Your task to perform on an android device: Go to privacy settings Image 0: 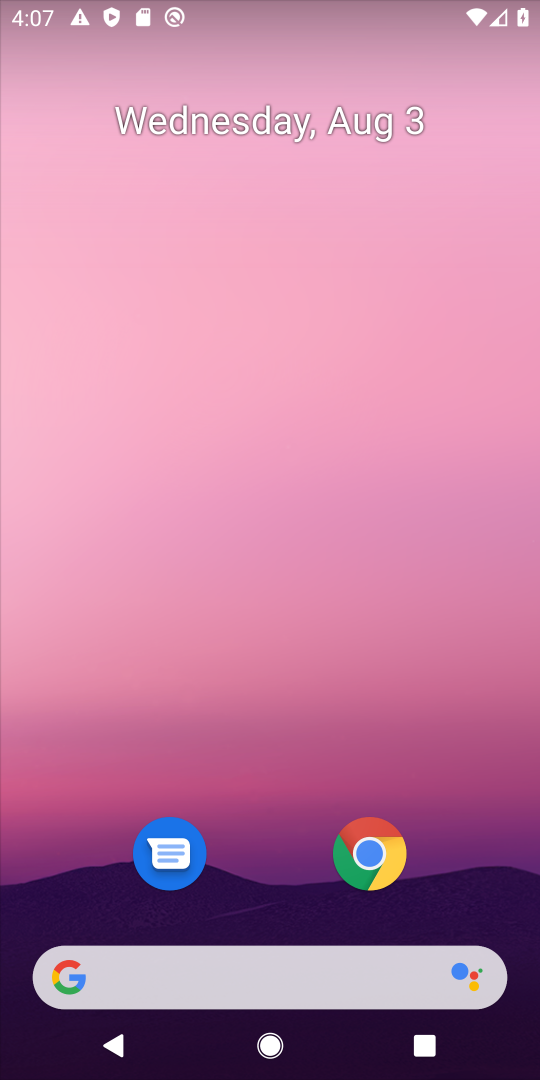
Step 0: drag from (254, 392) to (291, 68)
Your task to perform on an android device: Go to privacy settings Image 1: 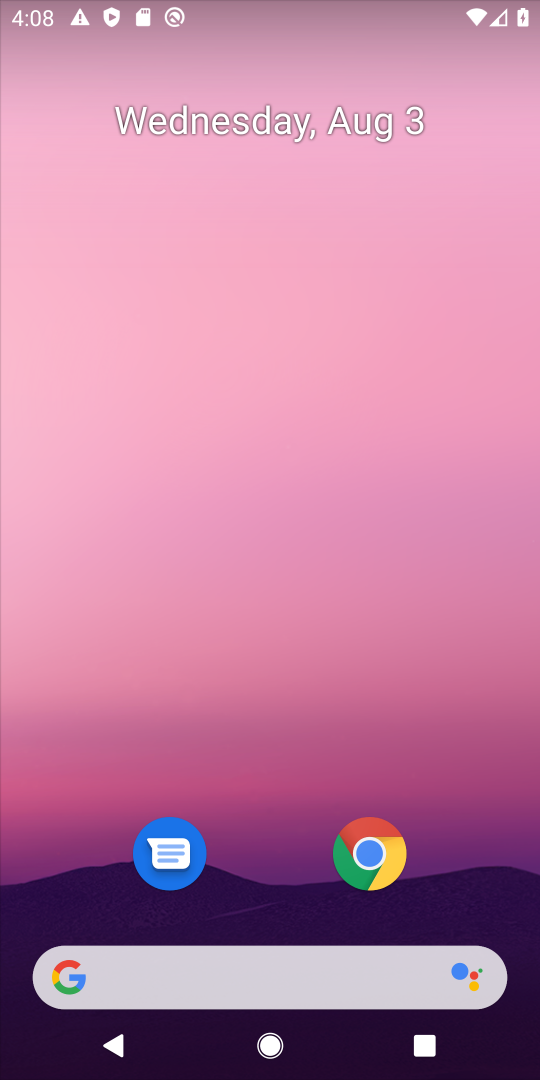
Step 1: drag from (277, 845) to (527, 284)
Your task to perform on an android device: Go to privacy settings Image 2: 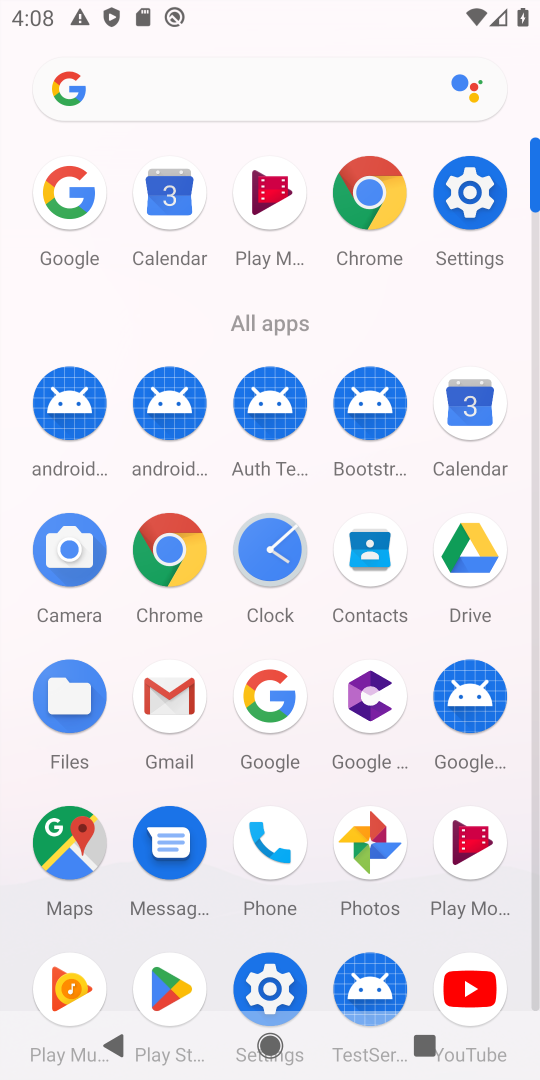
Step 2: click (467, 197)
Your task to perform on an android device: Go to privacy settings Image 3: 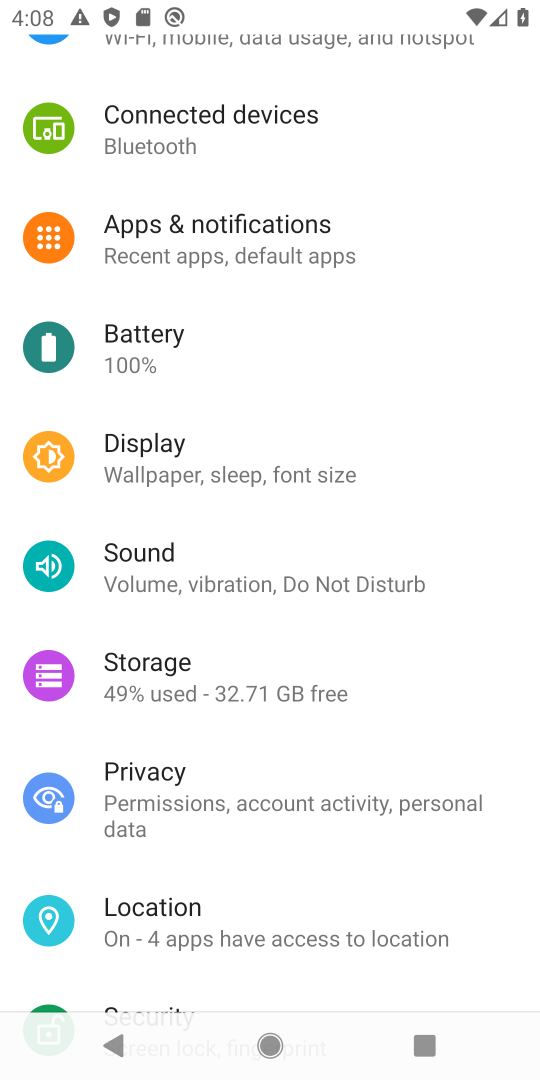
Step 3: click (148, 777)
Your task to perform on an android device: Go to privacy settings Image 4: 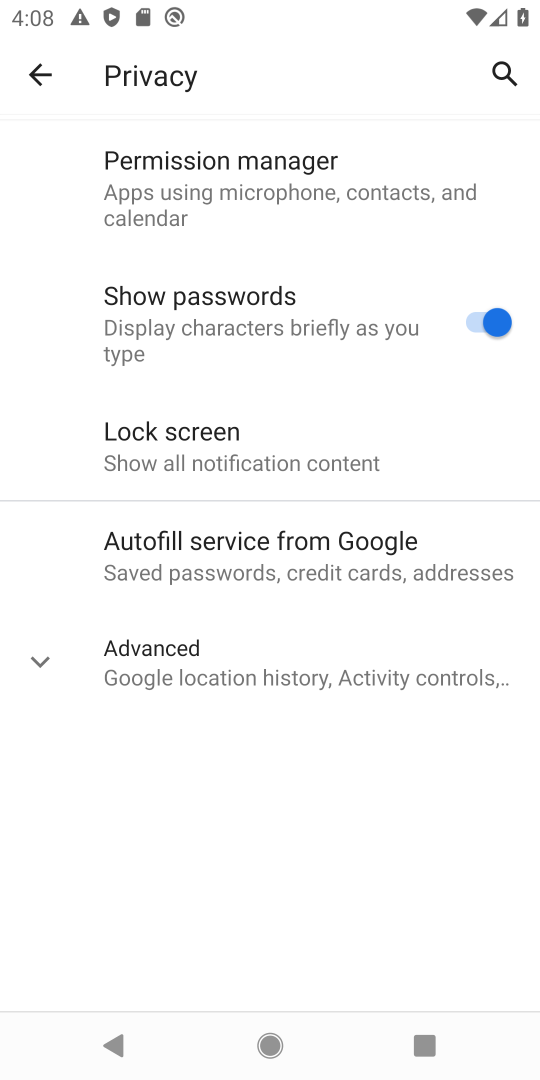
Step 4: task complete